Your task to perform on an android device: open chrome privacy settings Image 0: 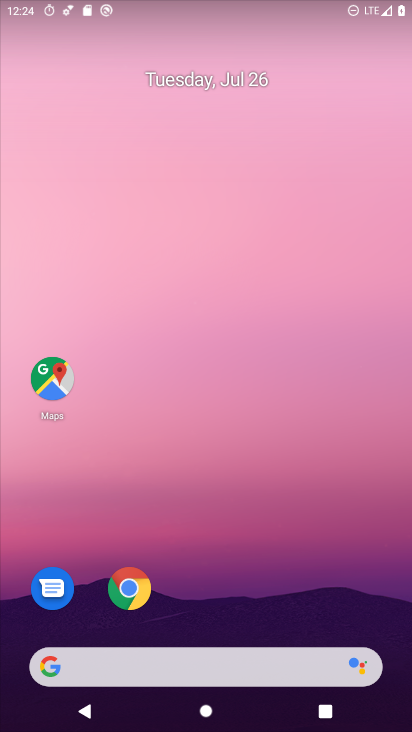
Step 0: drag from (193, 598) to (186, 163)
Your task to perform on an android device: open chrome privacy settings Image 1: 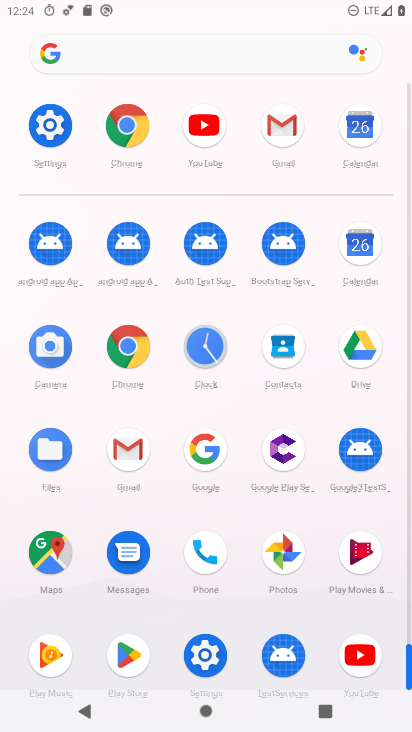
Step 1: click (139, 364)
Your task to perform on an android device: open chrome privacy settings Image 2: 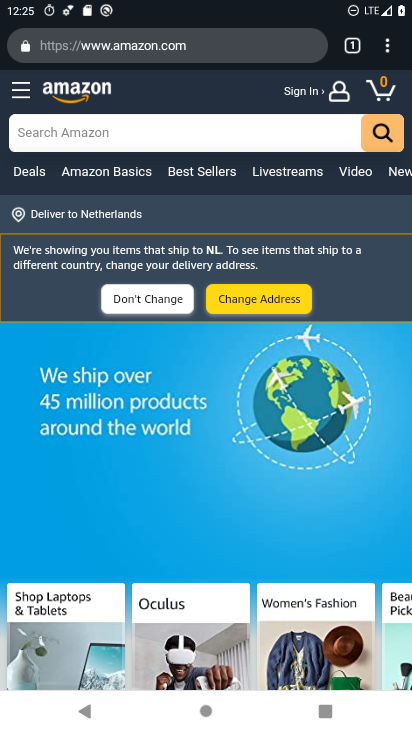
Step 2: click (386, 52)
Your task to perform on an android device: open chrome privacy settings Image 3: 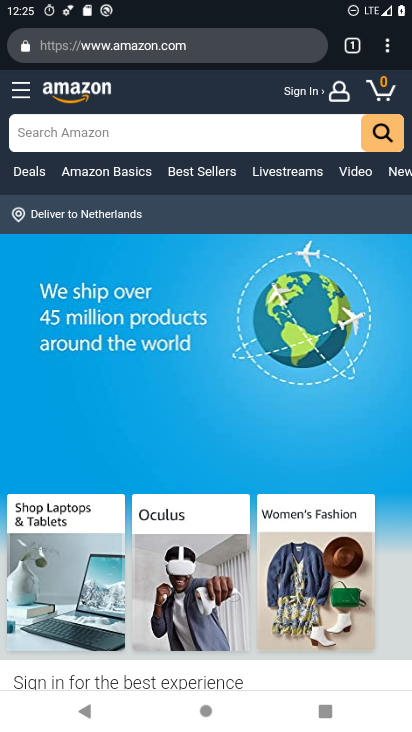
Step 3: click (394, 48)
Your task to perform on an android device: open chrome privacy settings Image 4: 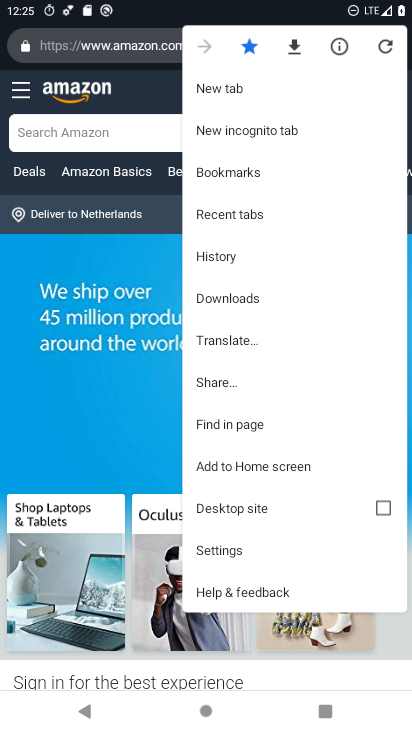
Step 4: click (245, 543)
Your task to perform on an android device: open chrome privacy settings Image 5: 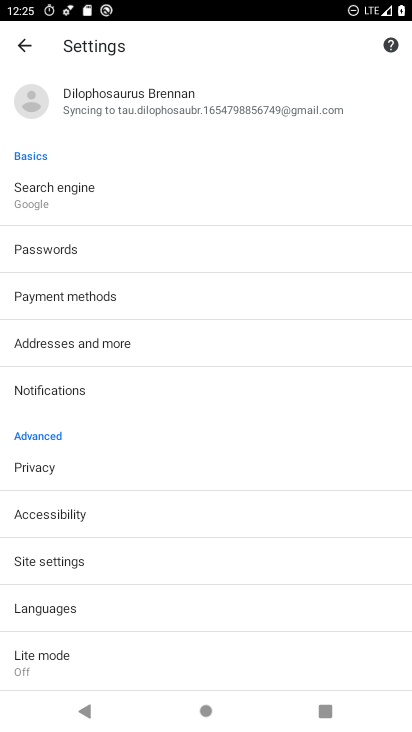
Step 5: click (124, 482)
Your task to perform on an android device: open chrome privacy settings Image 6: 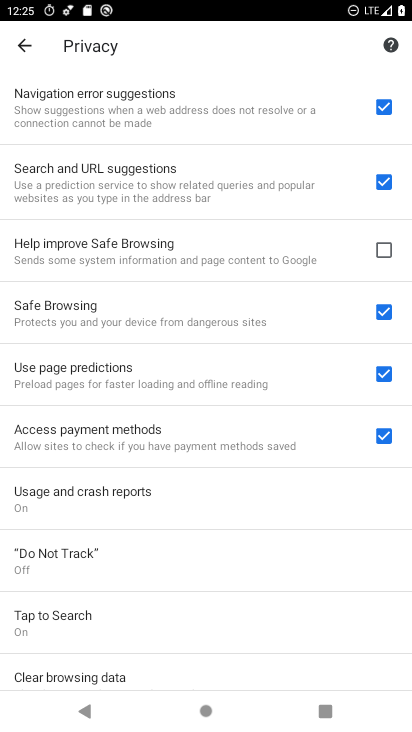
Step 6: task complete